Your task to perform on an android device: Go to eBay Image 0: 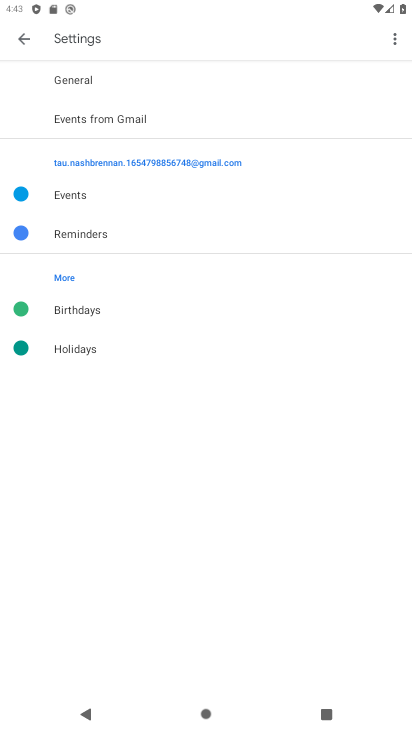
Step 0: press home button
Your task to perform on an android device: Go to eBay Image 1: 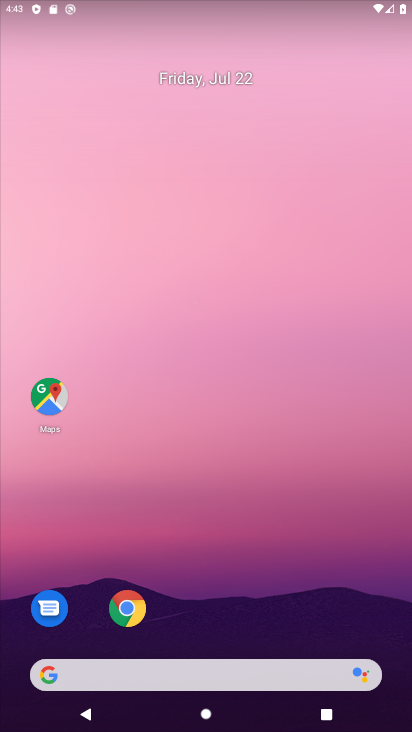
Step 1: click (129, 611)
Your task to perform on an android device: Go to eBay Image 2: 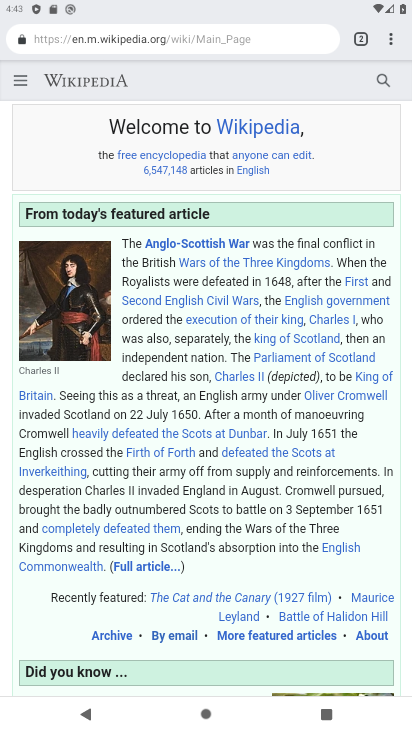
Step 2: click (361, 43)
Your task to perform on an android device: Go to eBay Image 3: 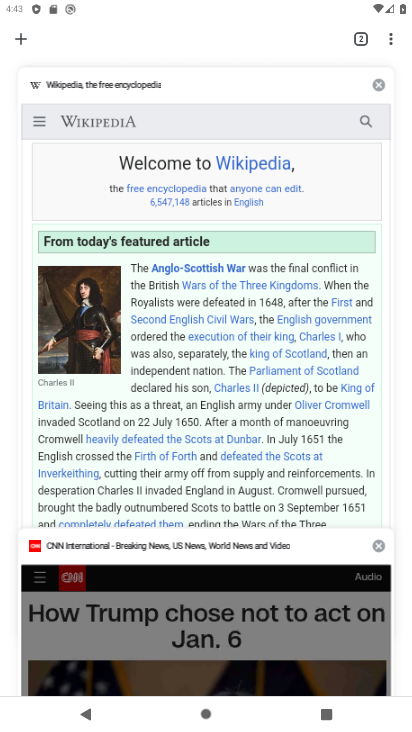
Step 3: click (16, 38)
Your task to perform on an android device: Go to eBay Image 4: 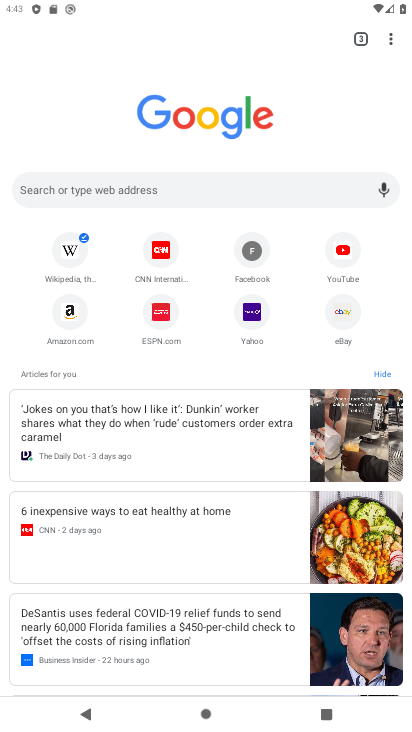
Step 4: click (340, 319)
Your task to perform on an android device: Go to eBay Image 5: 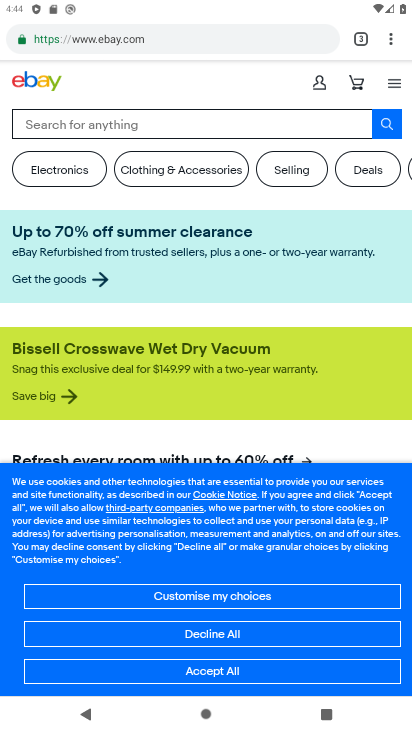
Step 5: task complete